Your task to perform on an android device: toggle priority inbox in the gmail app Image 0: 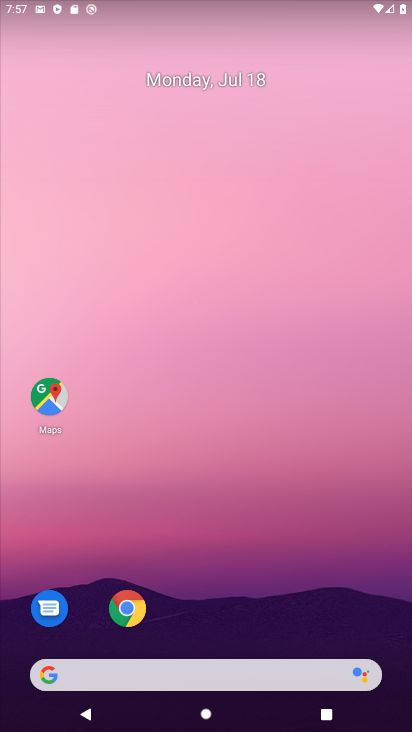
Step 0: drag from (243, 722) to (248, 198)
Your task to perform on an android device: toggle priority inbox in the gmail app Image 1: 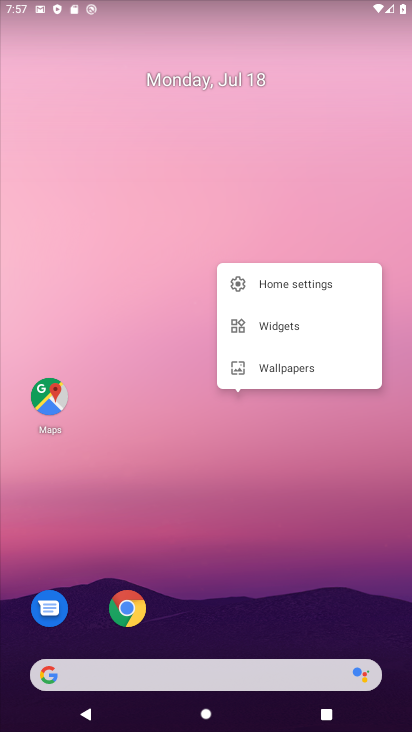
Step 1: click (193, 257)
Your task to perform on an android device: toggle priority inbox in the gmail app Image 2: 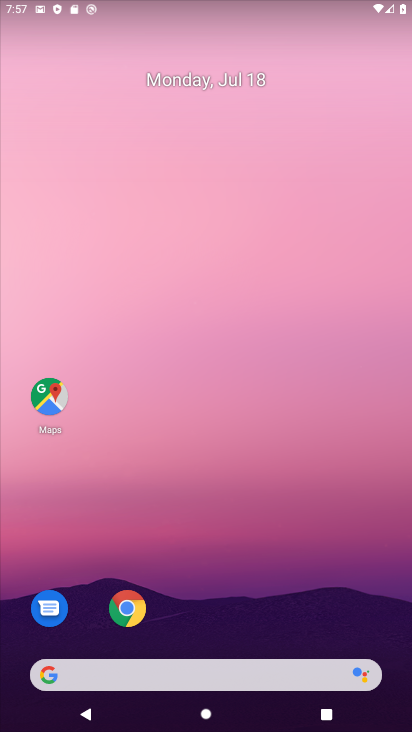
Step 2: drag from (221, 656) to (190, 172)
Your task to perform on an android device: toggle priority inbox in the gmail app Image 3: 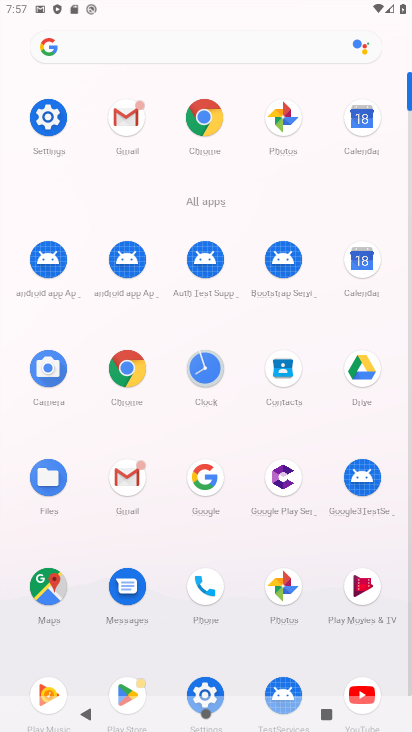
Step 3: click (127, 477)
Your task to perform on an android device: toggle priority inbox in the gmail app Image 4: 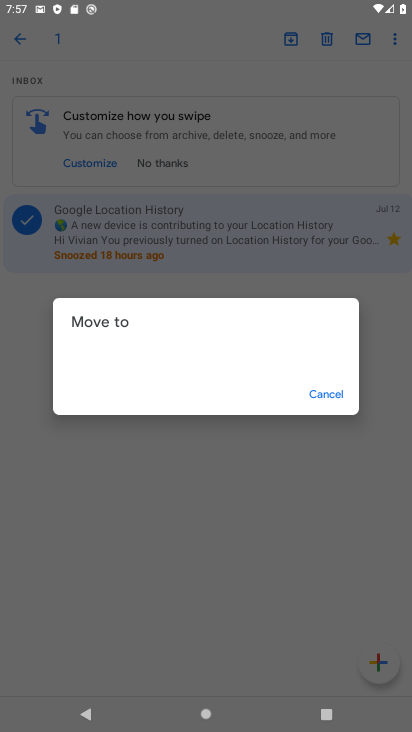
Step 4: click (321, 390)
Your task to perform on an android device: toggle priority inbox in the gmail app Image 5: 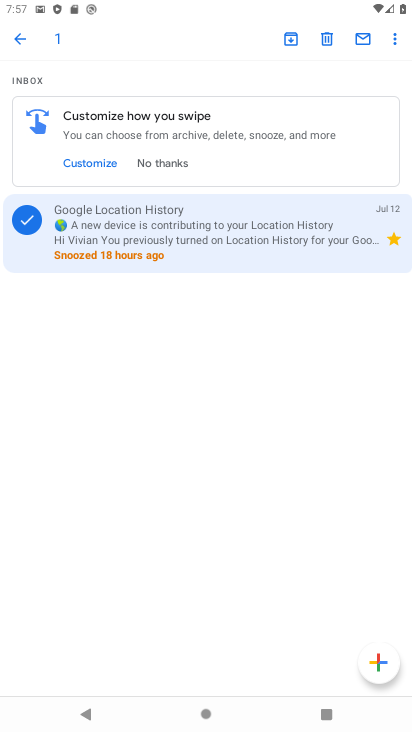
Step 5: click (22, 40)
Your task to perform on an android device: toggle priority inbox in the gmail app Image 6: 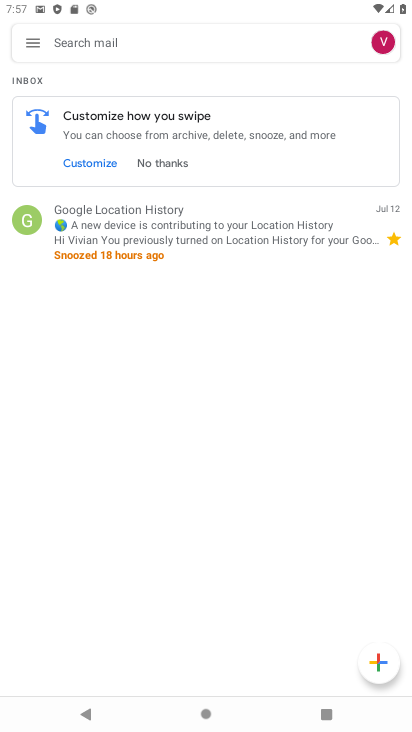
Step 6: click (30, 40)
Your task to perform on an android device: toggle priority inbox in the gmail app Image 7: 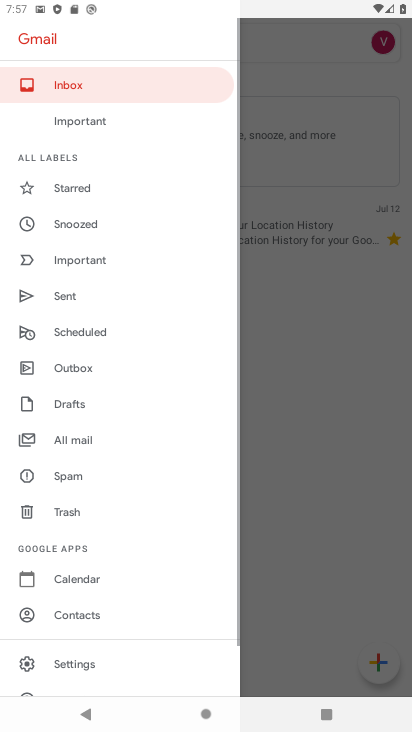
Step 7: click (77, 665)
Your task to perform on an android device: toggle priority inbox in the gmail app Image 8: 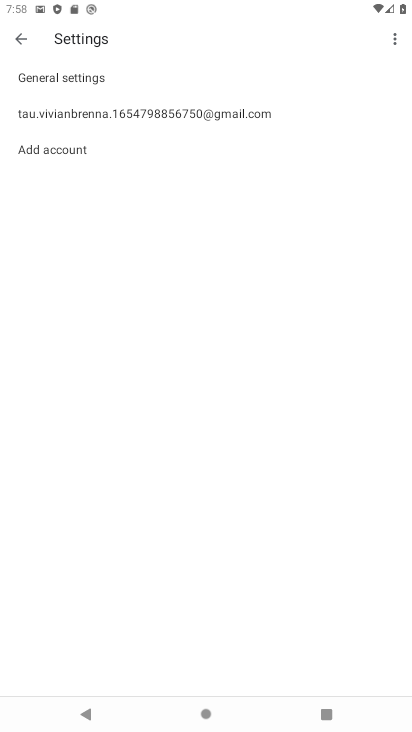
Step 8: click (196, 114)
Your task to perform on an android device: toggle priority inbox in the gmail app Image 9: 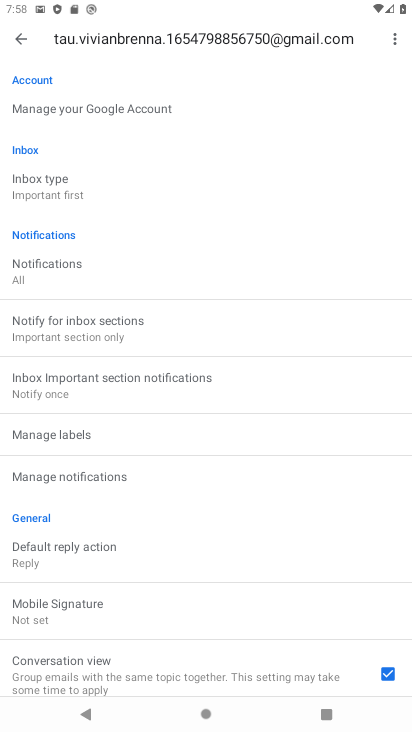
Step 9: drag from (78, 637) to (62, 426)
Your task to perform on an android device: toggle priority inbox in the gmail app Image 10: 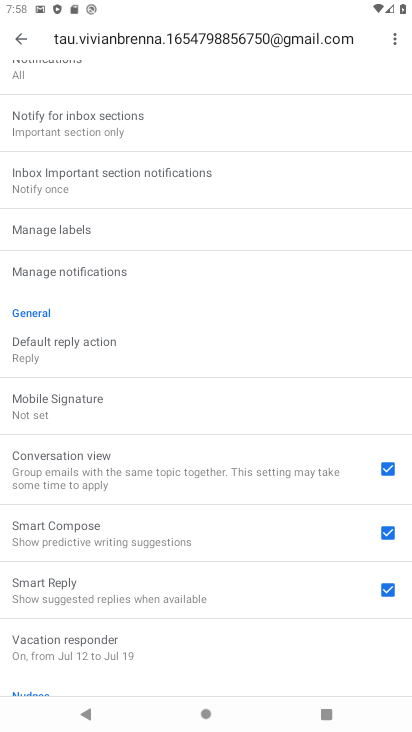
Step 10: drag from (151, 102) to (132, 547)
Your task to perform on an android device: toggle priority inbox in the gmail app Image 11: 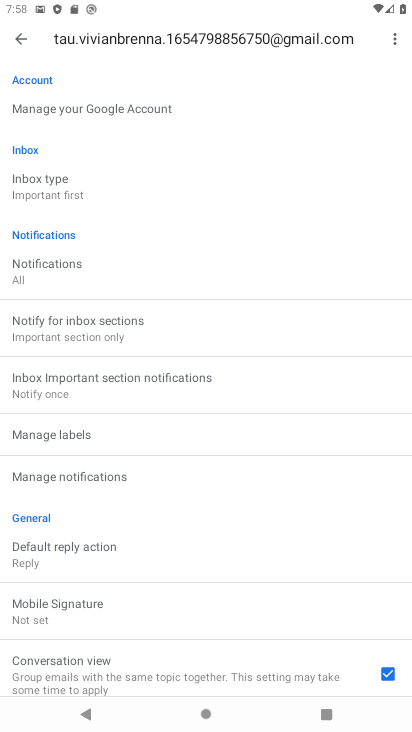
Step 11: click (60, 179)
Your task to perform on an android device: toggle priority inbox in the gmail app Image 12: 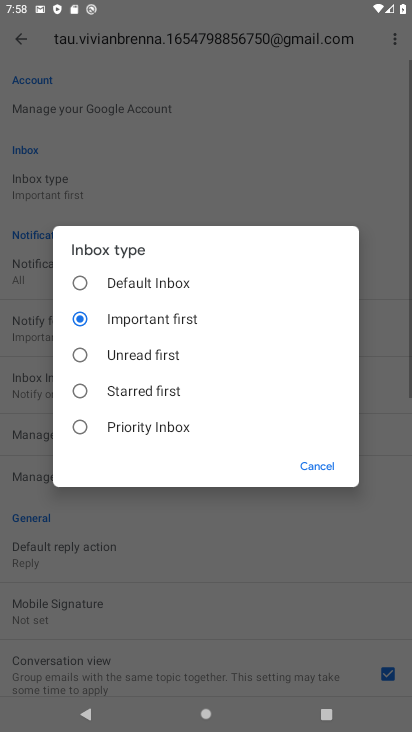
Step 12: click (78, 430)
Your task to perform on an android device: toggle priority inbox in the gmail app Image 13: 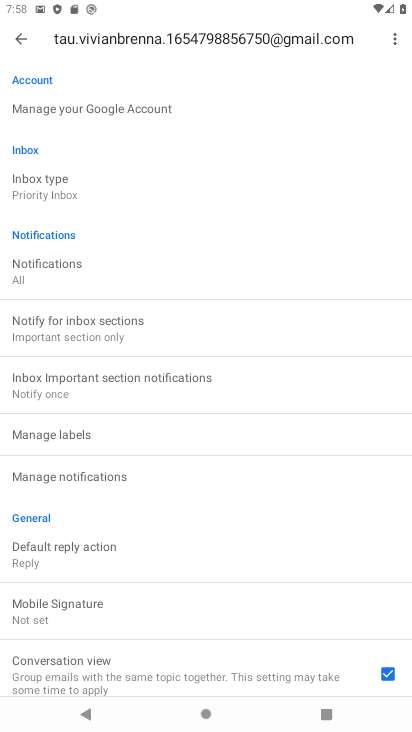
Step 13: task complete